Your task to perform on an android device: Search for Mexican restaurants on Maps Image 0: 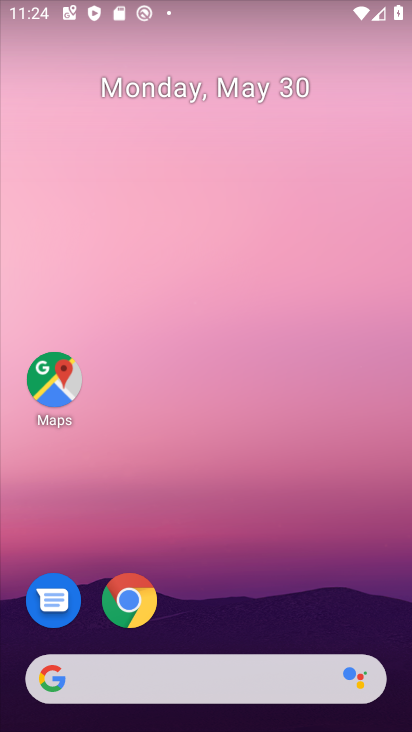
Step 0: drag from (213, 726) to (169, 85)
Your task to perform on an android device: Search for Mexican restaurants on Maps Image 1: 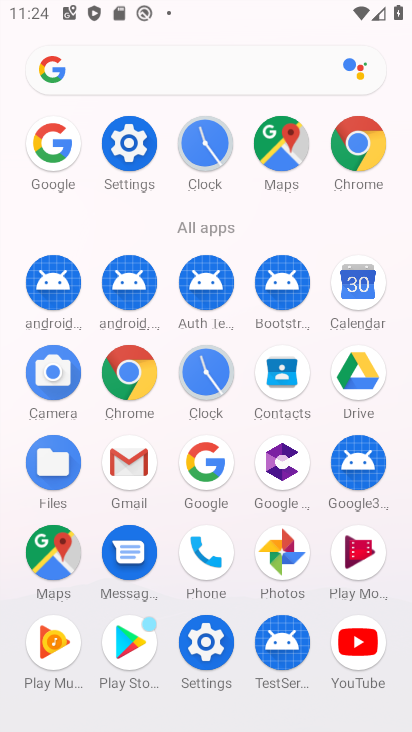
Step 1: click (66, 558)
Your task to perform on an android device: Search for Mexican restaurants on Maps Image 2: 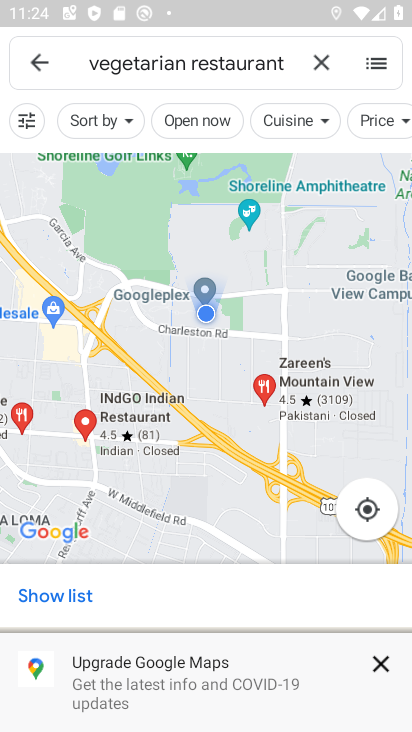
Step 2: click (320, 60)
Your task to perform on an android device: Search for Mexican restaurants on Maps Image 3: 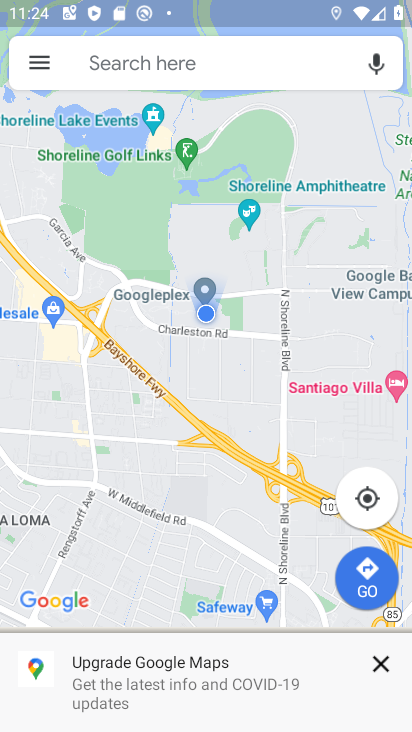
Step 3: click (171, 62)
Your task to perform on an android device: Search for Mexican restaurants on Maps Image 4: 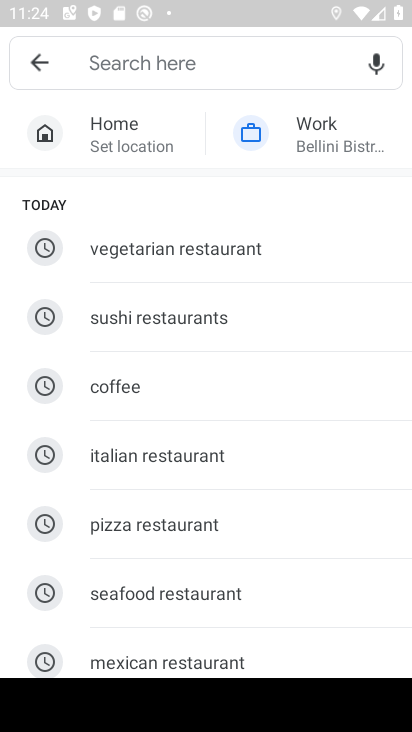
Step 4: type "Mexican restaurants"
Your task to perform on an android device: Search for Mexican restaurants on Maps Image 5: 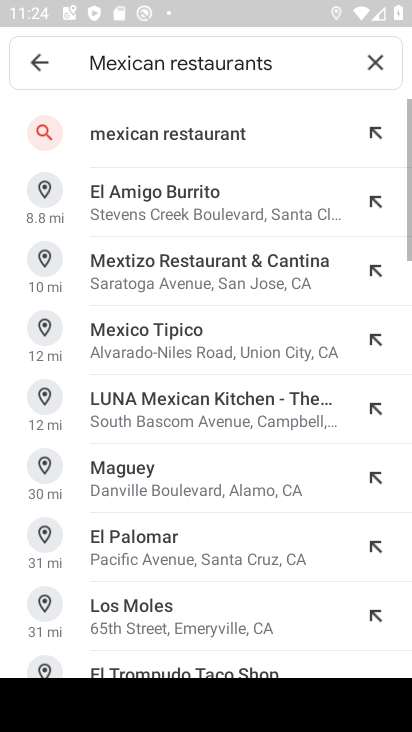
Step 5: click (119, 134)
Your task to perform on an android device: Search for Mexican restaurants on Maps Image 6: 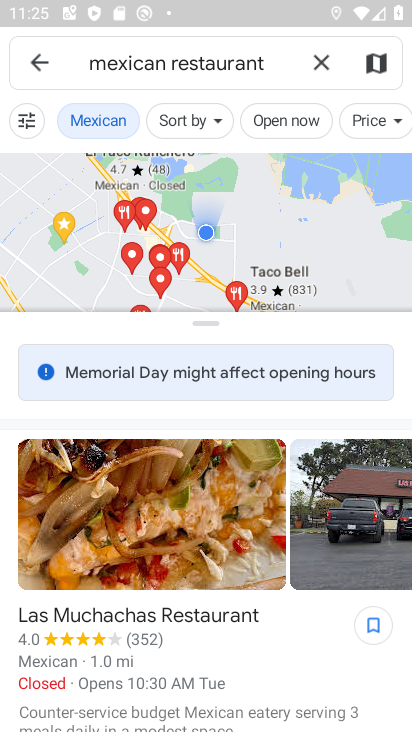
Step 6: task complete